Your task to perform on an android device: What is the recent news? Image 0: 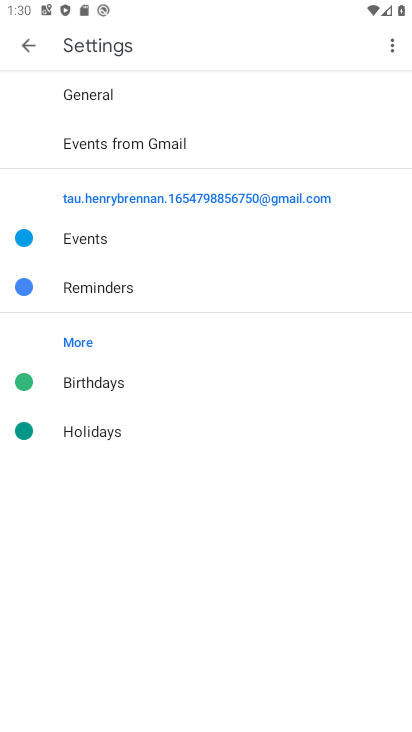
Step 0: press home button
Your task to perform on an android device: What is the recent news? Image 1: 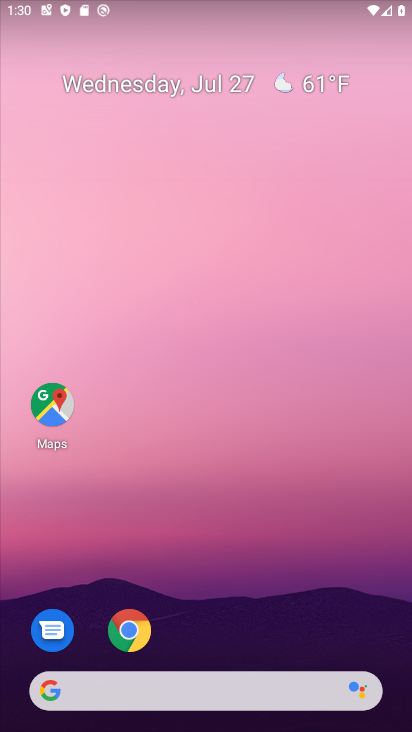
Step 1: drag from (139, 639) to (148, 156)
Your task to perform on an android device: What is the recent news? Image 2: 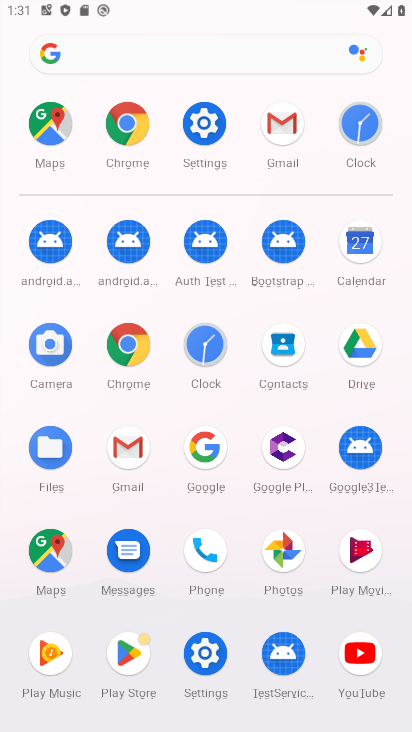
Step 2: click (203, 449)
Your task to perform on an android device: What is the recent news? Image 3: 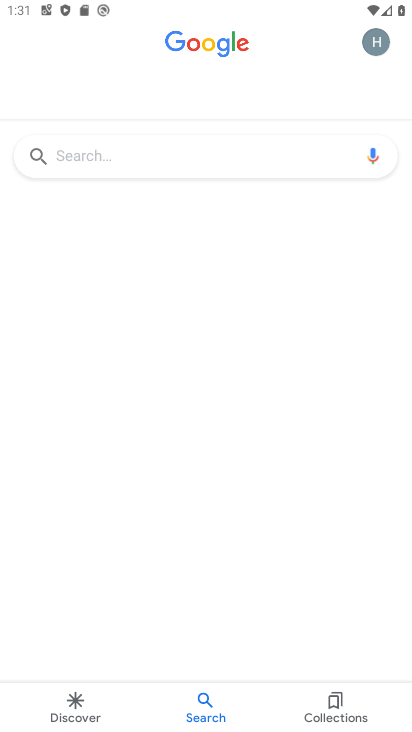
Step 3: click (83, 154)
Your task to perform on an android device: What is the recent news? Image 4: 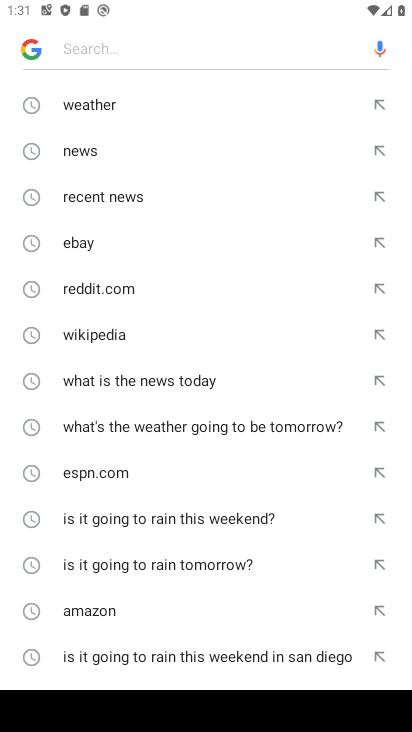
Step 4: click (90, 200)
Your task to perform on an android device: What is the recent news? Image 5: 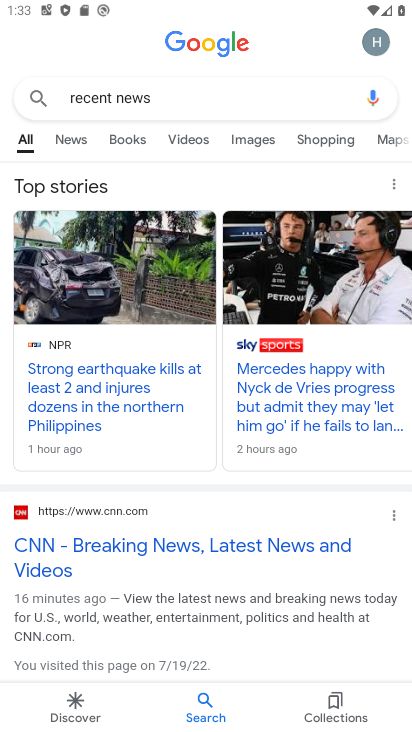
Step 5: task complete